Your task to perform on an android device: What's on my calendar today? Image 0: 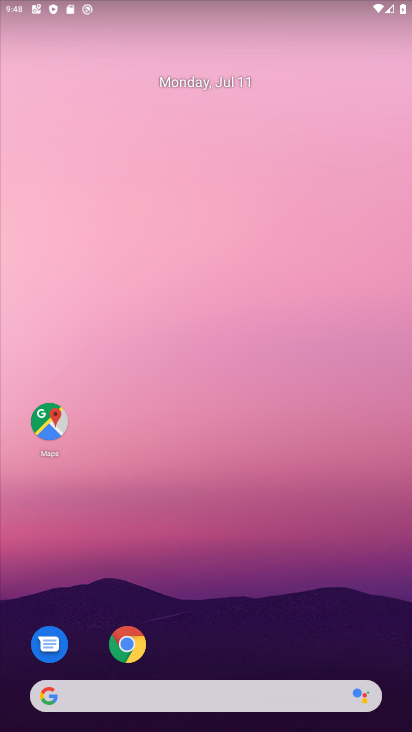
Step 0: drag from (217, 636) to (188, 128)
Your task to perform on an android device: What's on my calendar today? Image 1: 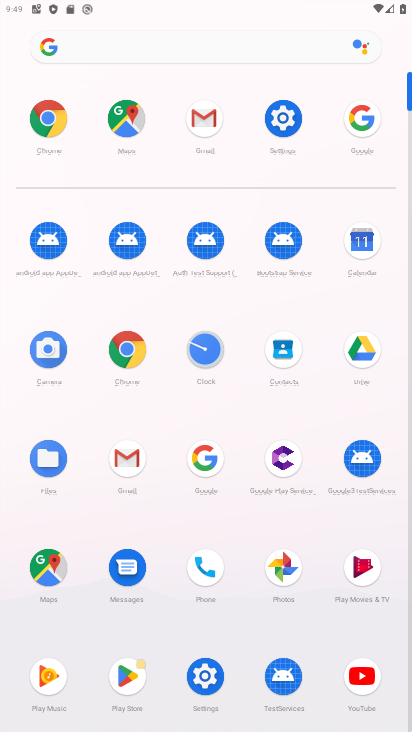
Step 1: click (362, 243)
Your task to perform on an android device: What's on my calendar today? Image 2: 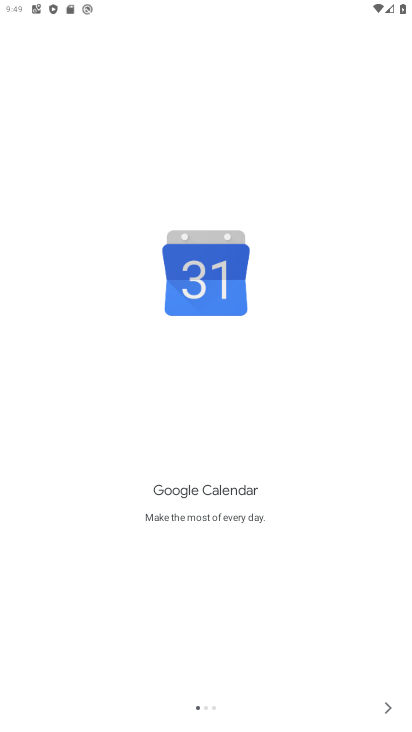
Step 2: click (382, 703)
Your task to perform on an android device: What's on my calendar today? Image 3: 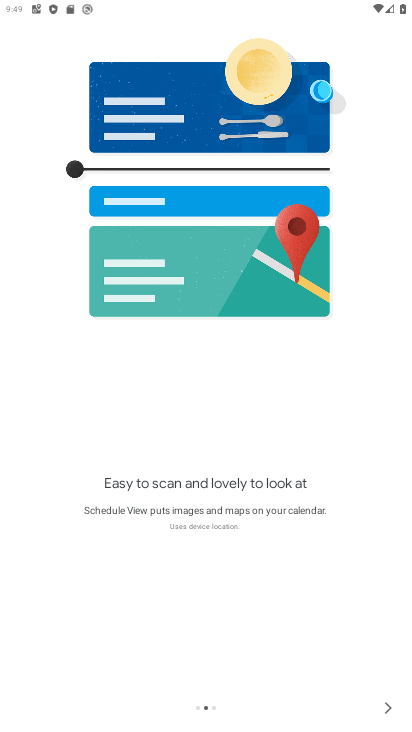
Step 3: click (382, 703)
Your task to perform on an android device: What's on my calendar today? Image 4: 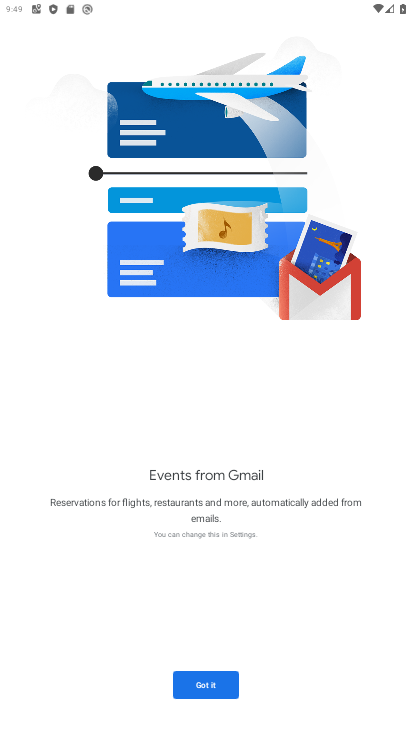
Step 4: click (199, 682)
Your task to perform on an android device: What's on my calendar today? Image 5: 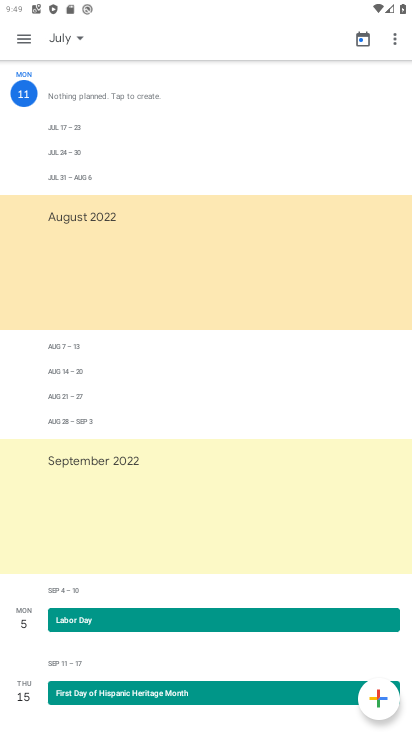
Step 5: click (75, 38)
Your task to perform on an android device: What's on my calendar today? Image 6: 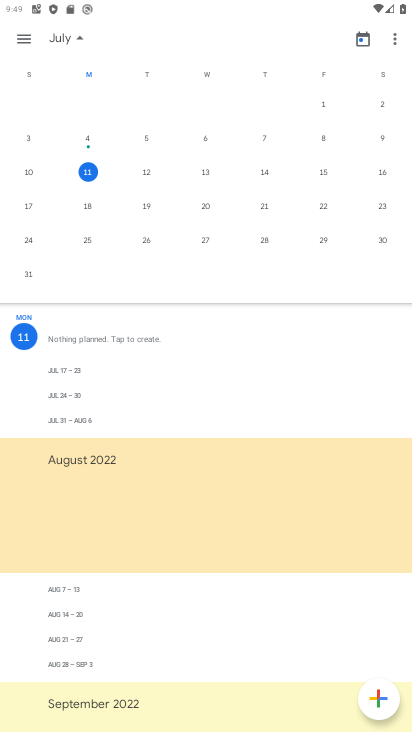
Step 6: task complete